Your task to perform on an android device: open sync settings in chrome Image 0: 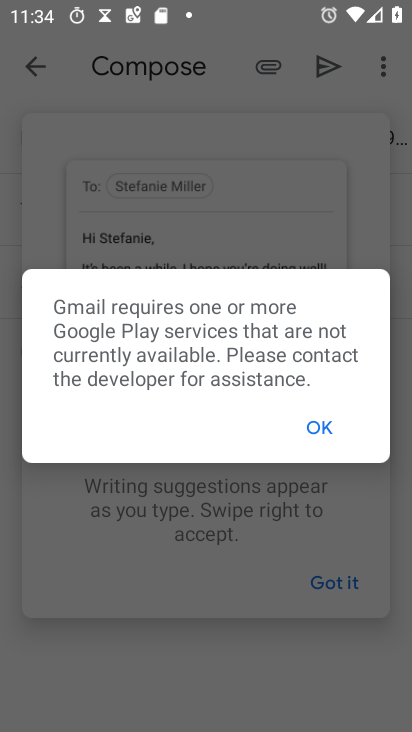
Step 0: press home button
Your task to perform on an android device: open sync settings in chrome Image 1: 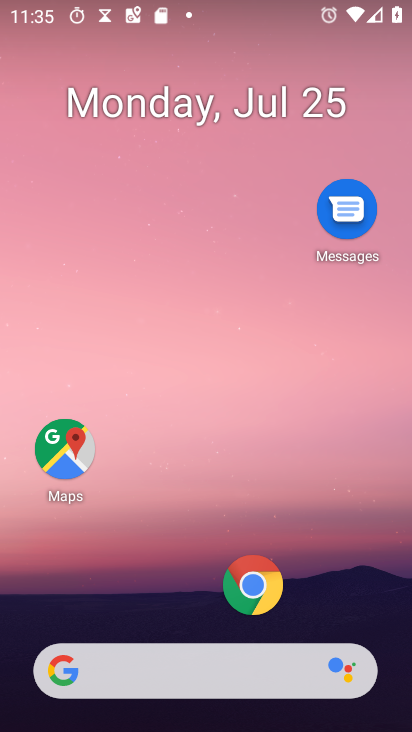
Step 1: click (250, 589)
Your task to perform on an android device: open sync settings in chrome Image 2: 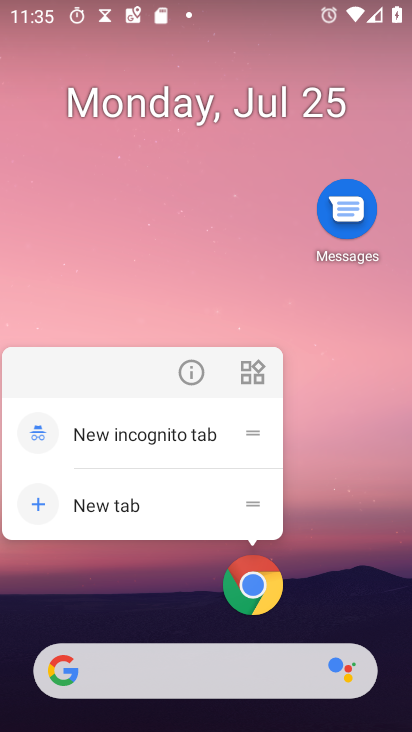
Step 2: click (248, 576)
Your task to perform on an android device: open sync settings in chrome Image 3: 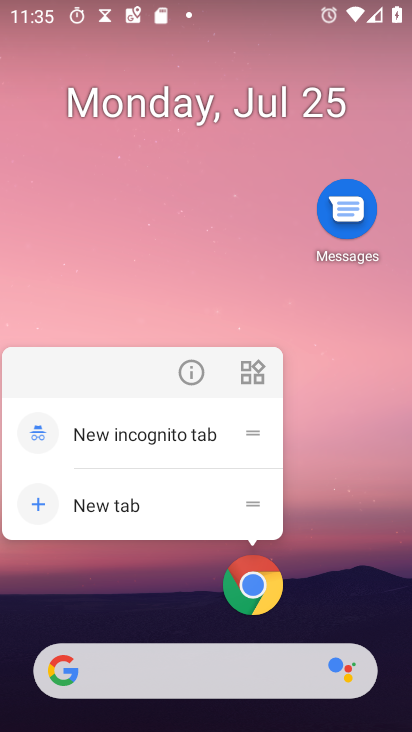
Step 3: click (248, 577)
Your task to perform on an android device: open sync settings in chrome Image 4: 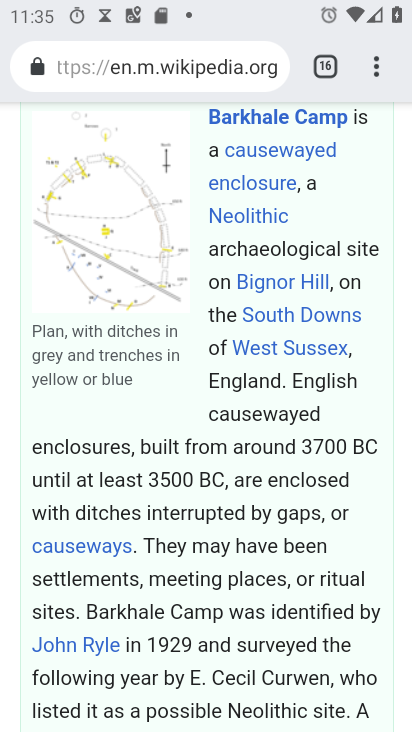
Step 4: drag from (379, 69) to (213, 600)
Your task to perform on an android device: open sync settings in chrome Image 5: 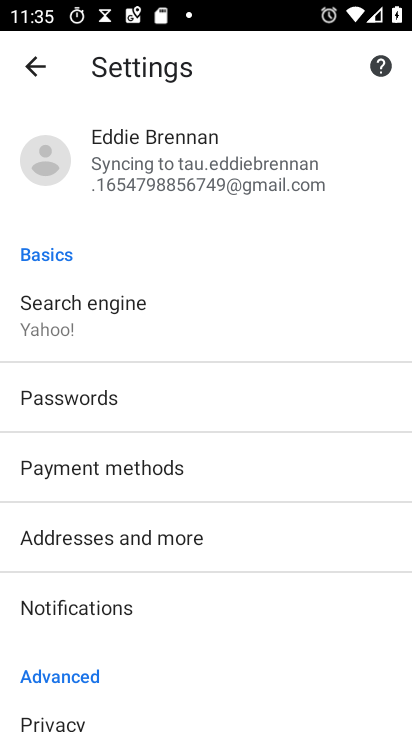
Step 5: click (195, 189)
Your task to perform on an android device: open sync settings in chrome Image 6: 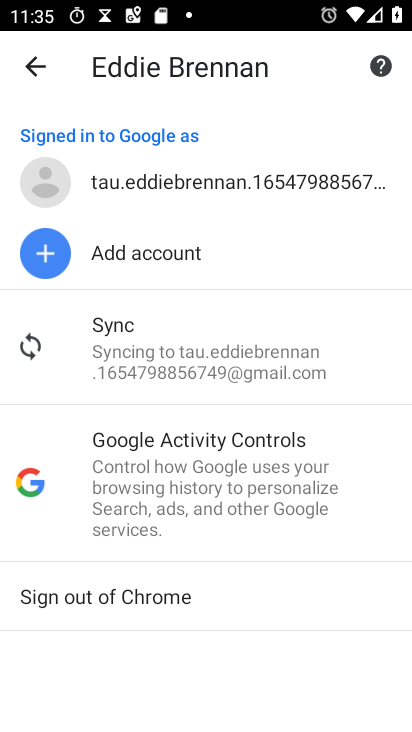
Step 6: click (196, 324)
Your task to perform on an android device: open sync settings in chrome Image 7: 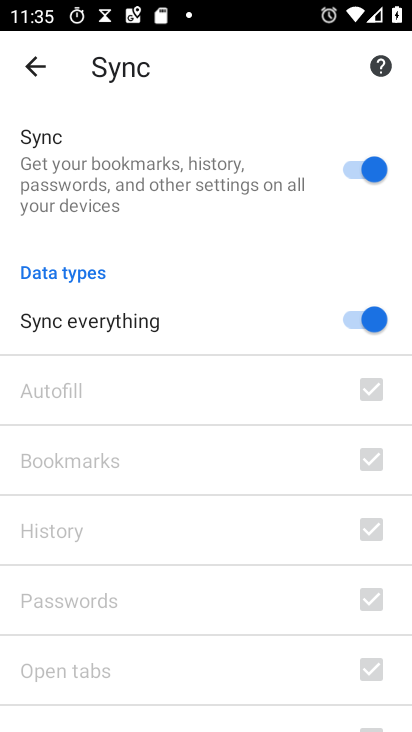
Step 7: task complete